Your task to perform on an android device: open sync settings in chrome Image 0: 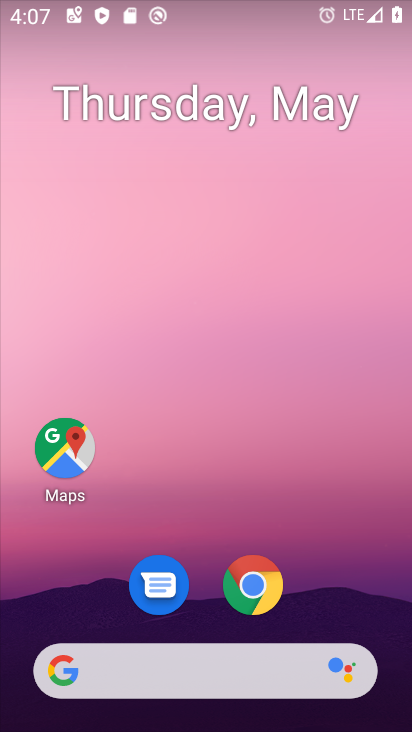
Step 0: click (258, 588)
Your task to perform on an android device: open sync settings in chrome Image 1: 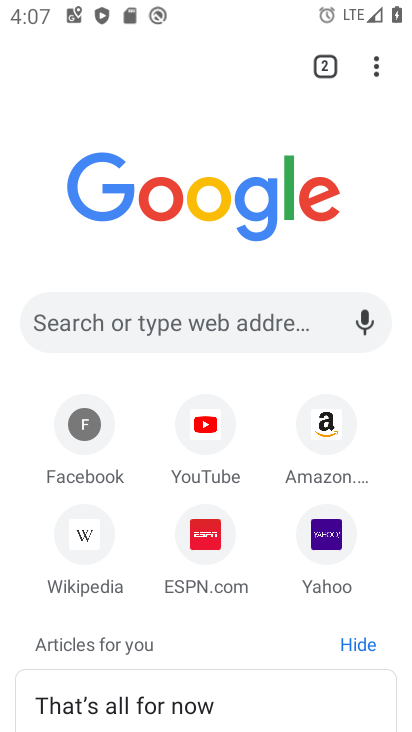
Step 1: click (369, 67)
Your task to perform on an android device: open sync settings in chrome Image 2: 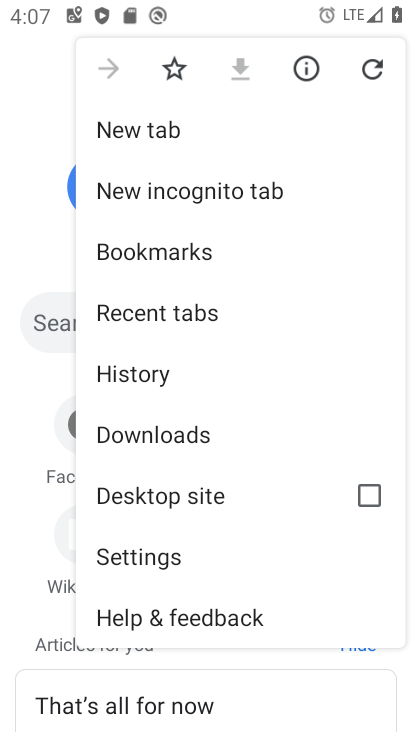
Step 2: click (192, 547)
Your task to perform on an android device: open sync settings in chrome Image 3: 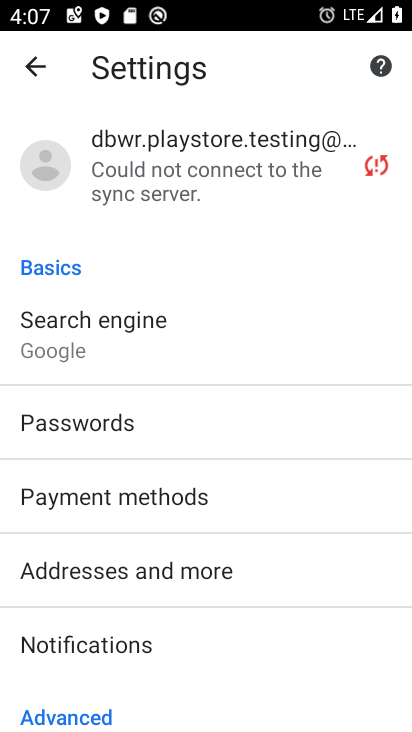
Step 3: click (170, 166)
Your task to perform on an android device: open sync settings in chrome Image 4: 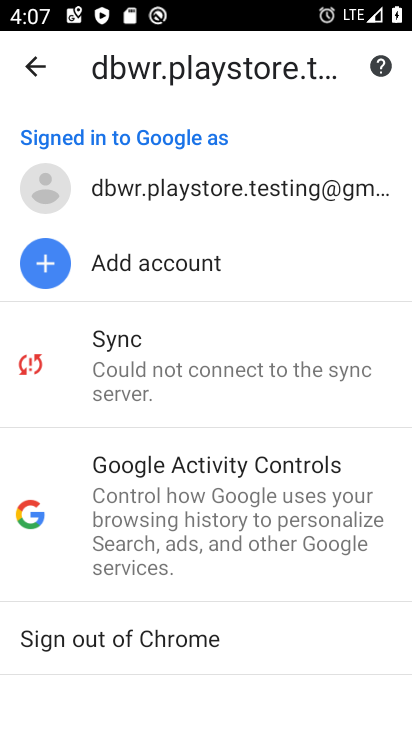
Step 4: click (156, 347)
Your task to perform on an android device: open sync settings in chrome Image 5: 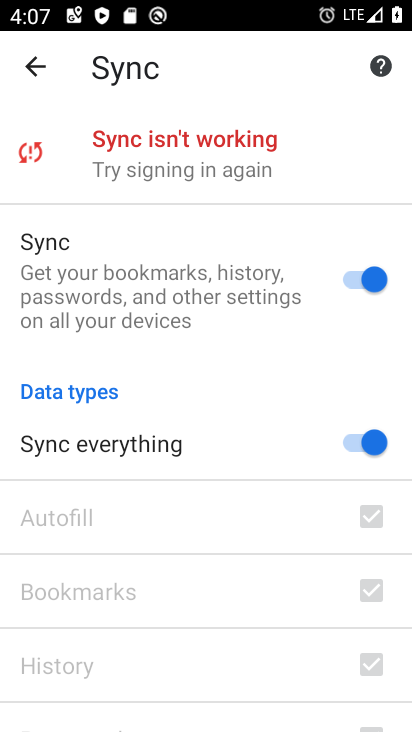
Step 5: task complete